Your task to perform on an android device: Add "razer nari" to the cart on ebay.com, then select checkout. Image 0: 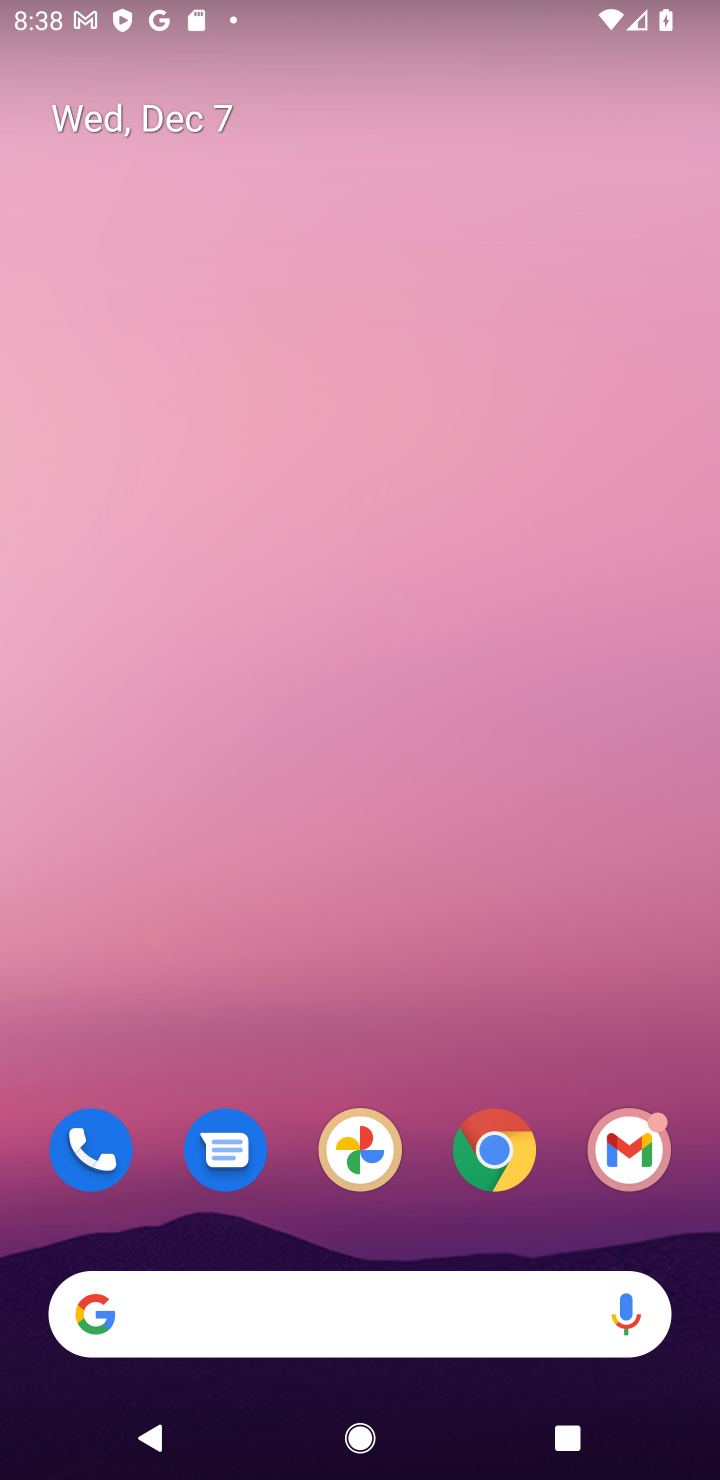
Step 0: click (497, 1153)
Your task to perform on an android device: Add "razer nari" to the cart on ebay.com, then select checkout. Image 1: 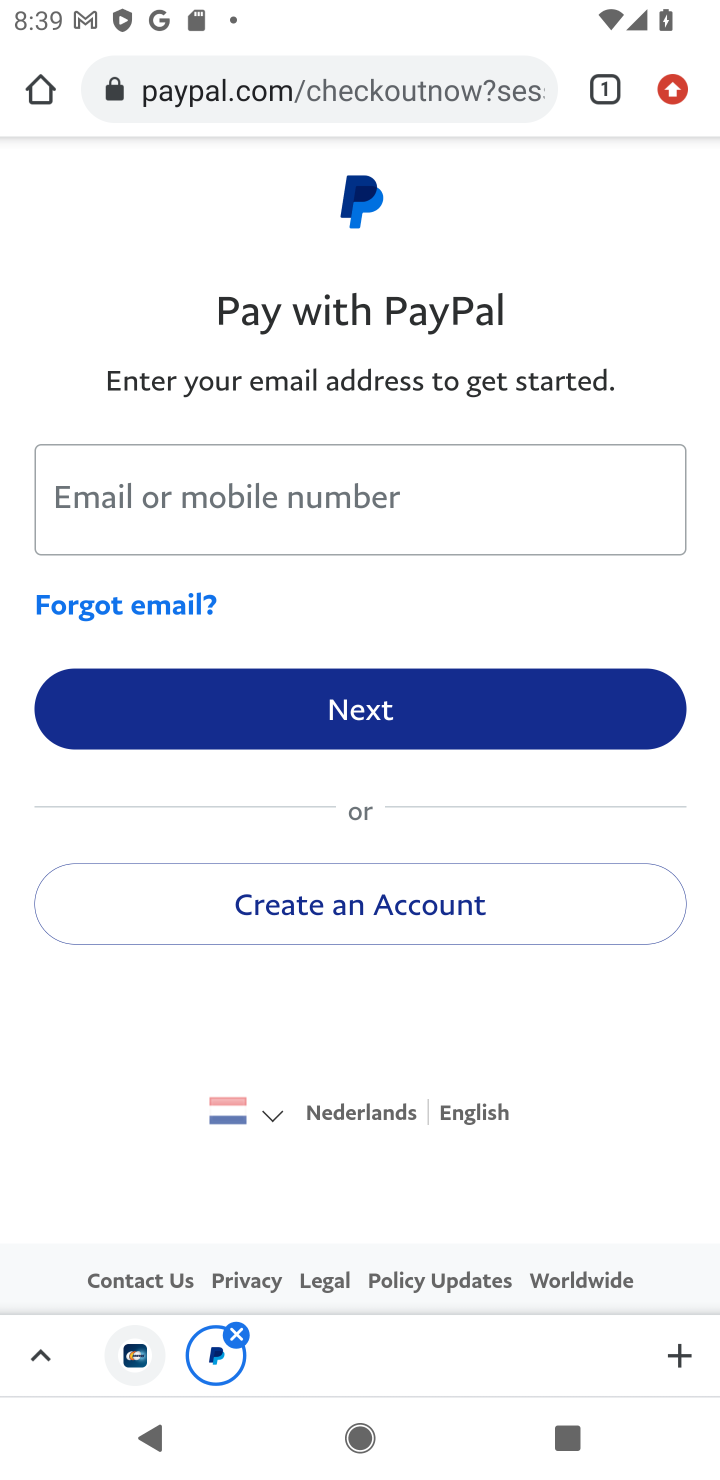
Step 1: click (285, 84)
Your task to perform on an android device: Add "razer nari" to the cart on ebay.com, then select checkout. Image 2: 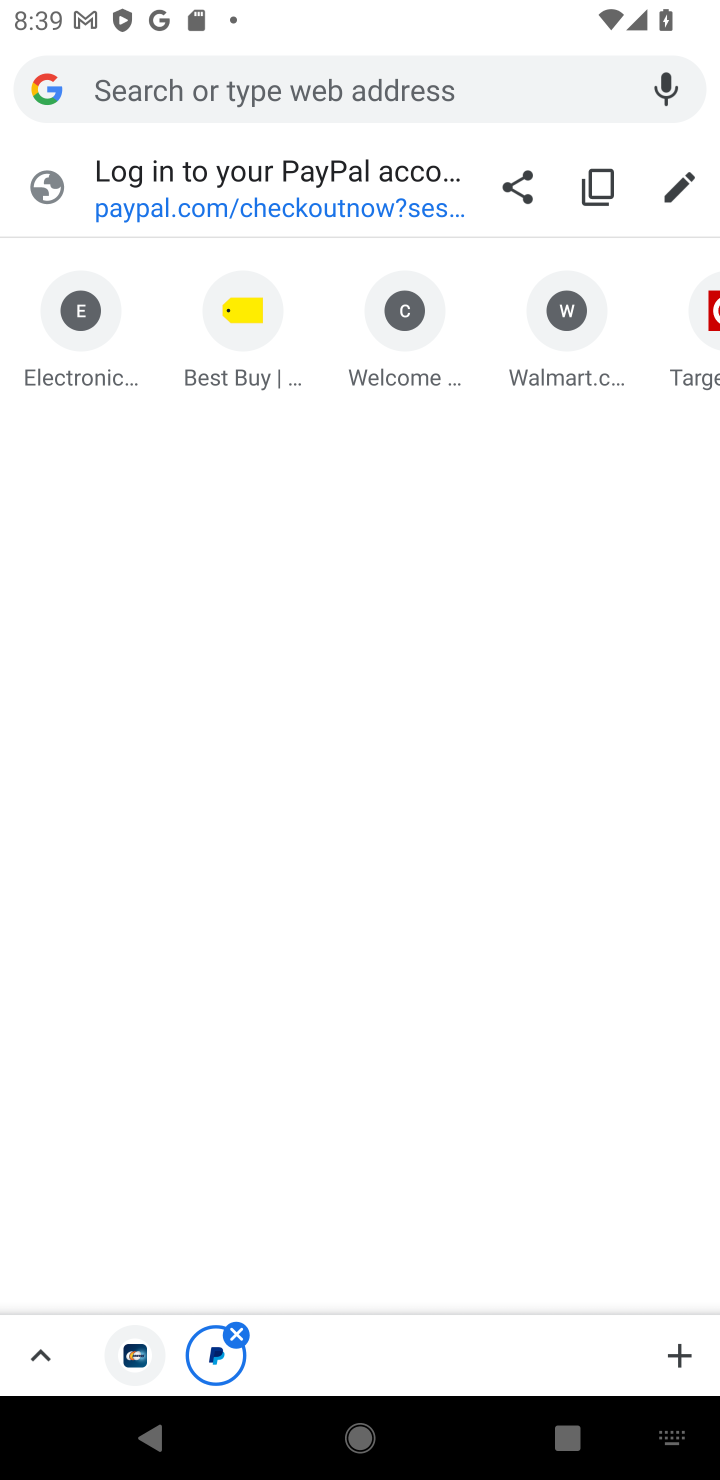
Step 2: type "ebay.com"
Your task to perform on an android device: Add "razer nari" to the cart on ebay.com, then select checkout. Image 3: 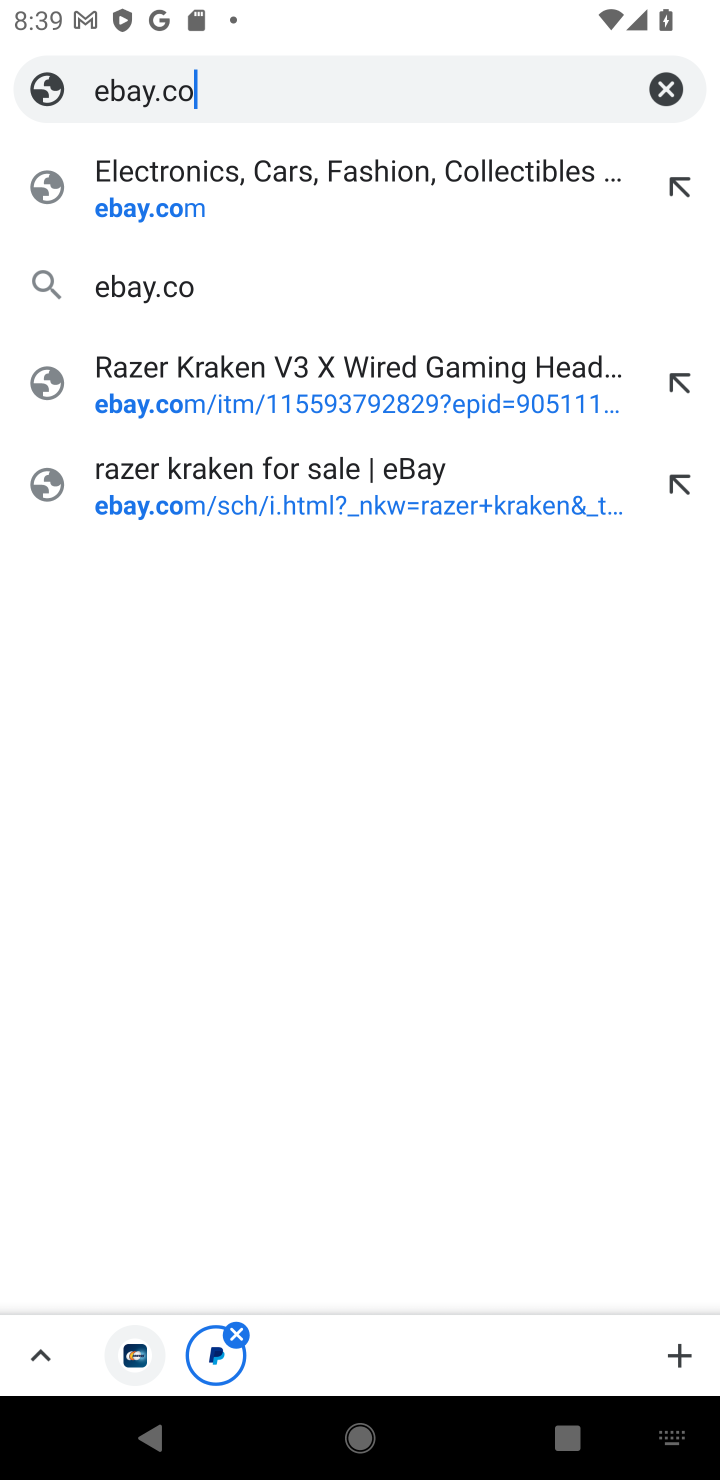
Step 3: press enter
Your task to perform on an android device: Add "razer nari" to the cart on ebay.com, then select checkout. Image 4: 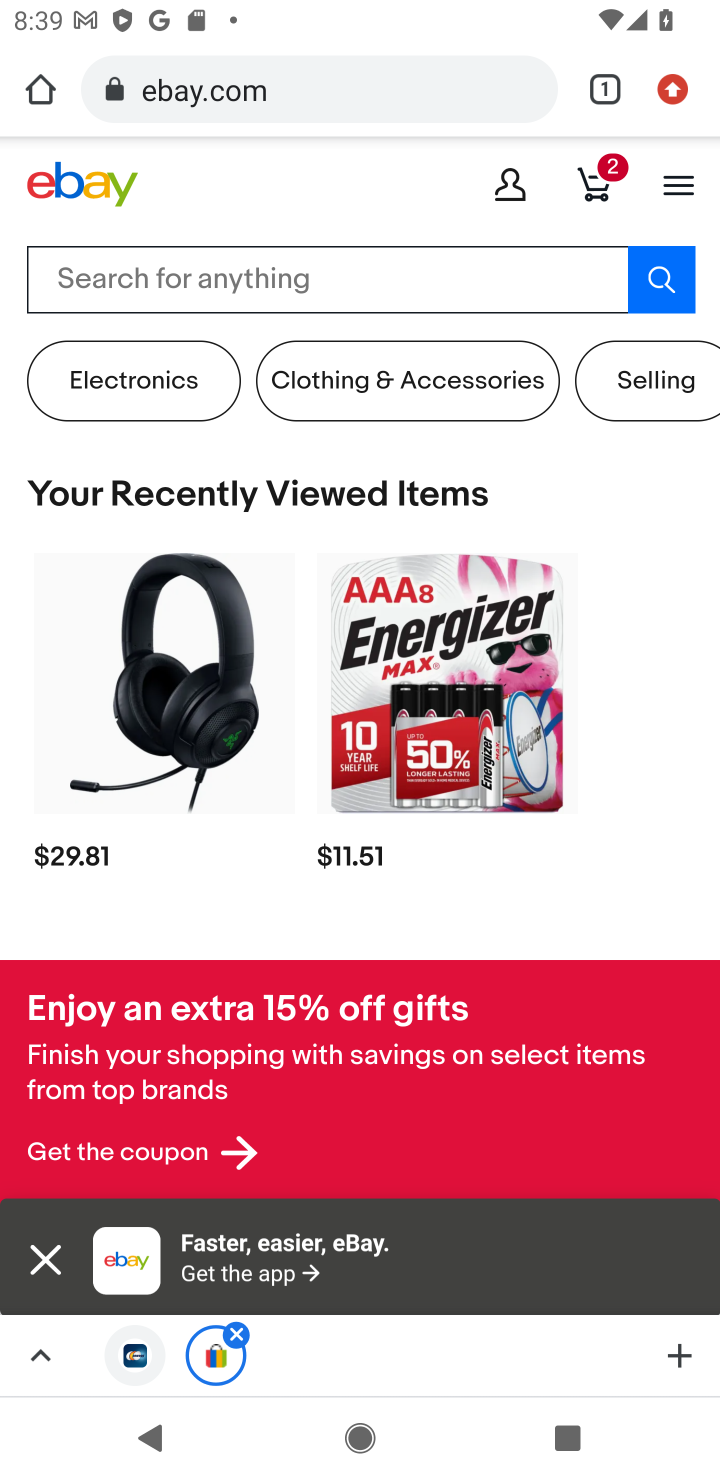
Step 4: click (325, 256)
Your task to perform on an android device: Add "razer nari" to the cart on ebay.com, then select checkout. Image 5: 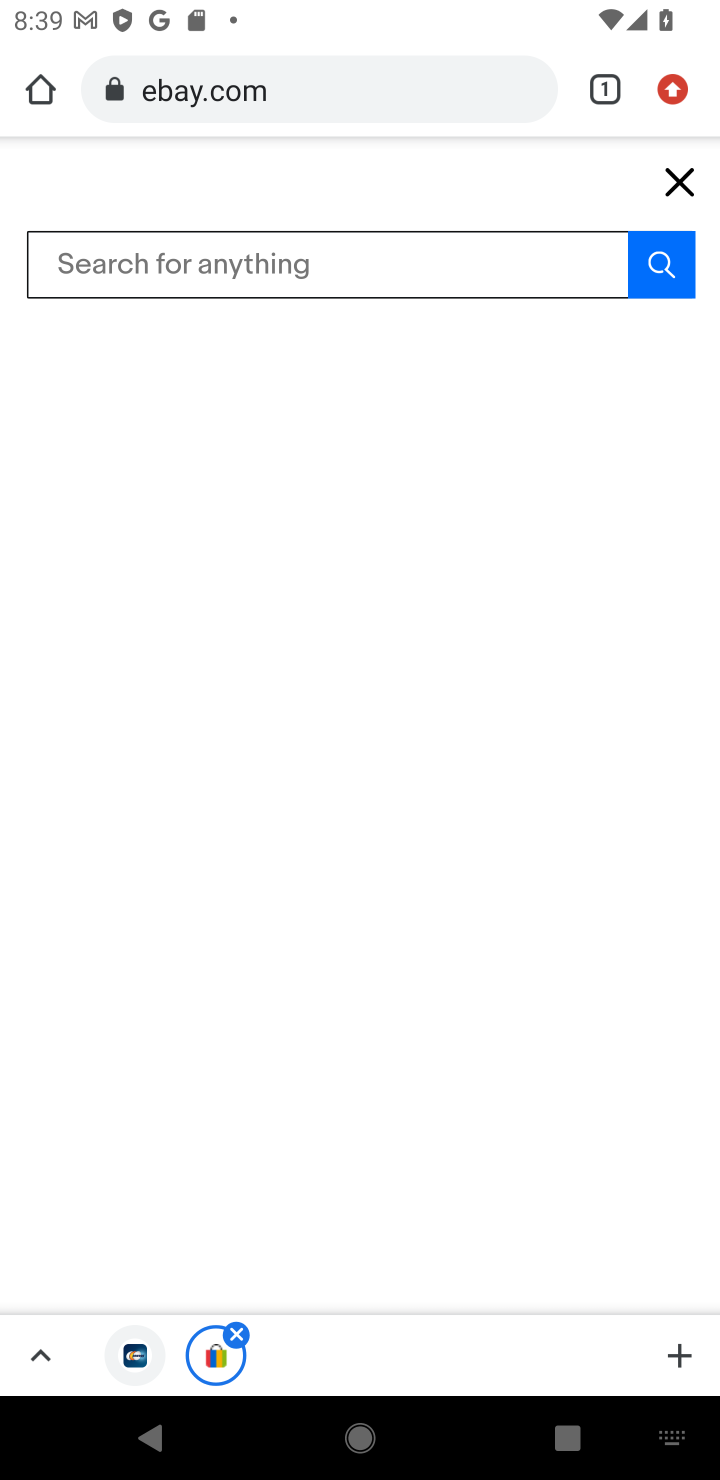
Step 5: type "razer nari"
Your task to perform on an android device: Add "razer nari" to the cart on ebay.com, then select checkout. Image 6: 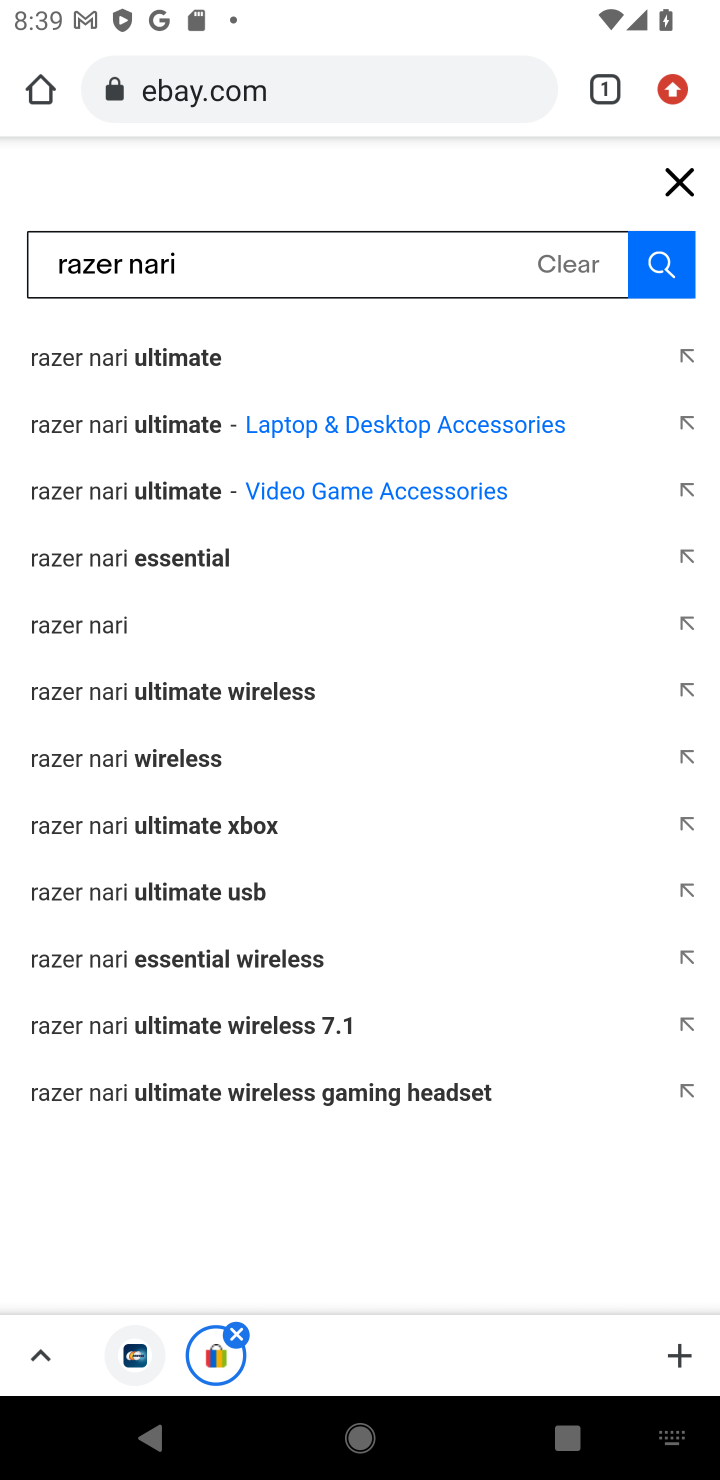
Step 6: click (658, 280)
Your task to perform on an android device: Add "razer nari" to the cart on ebay.com, then select checkout. Image 7: 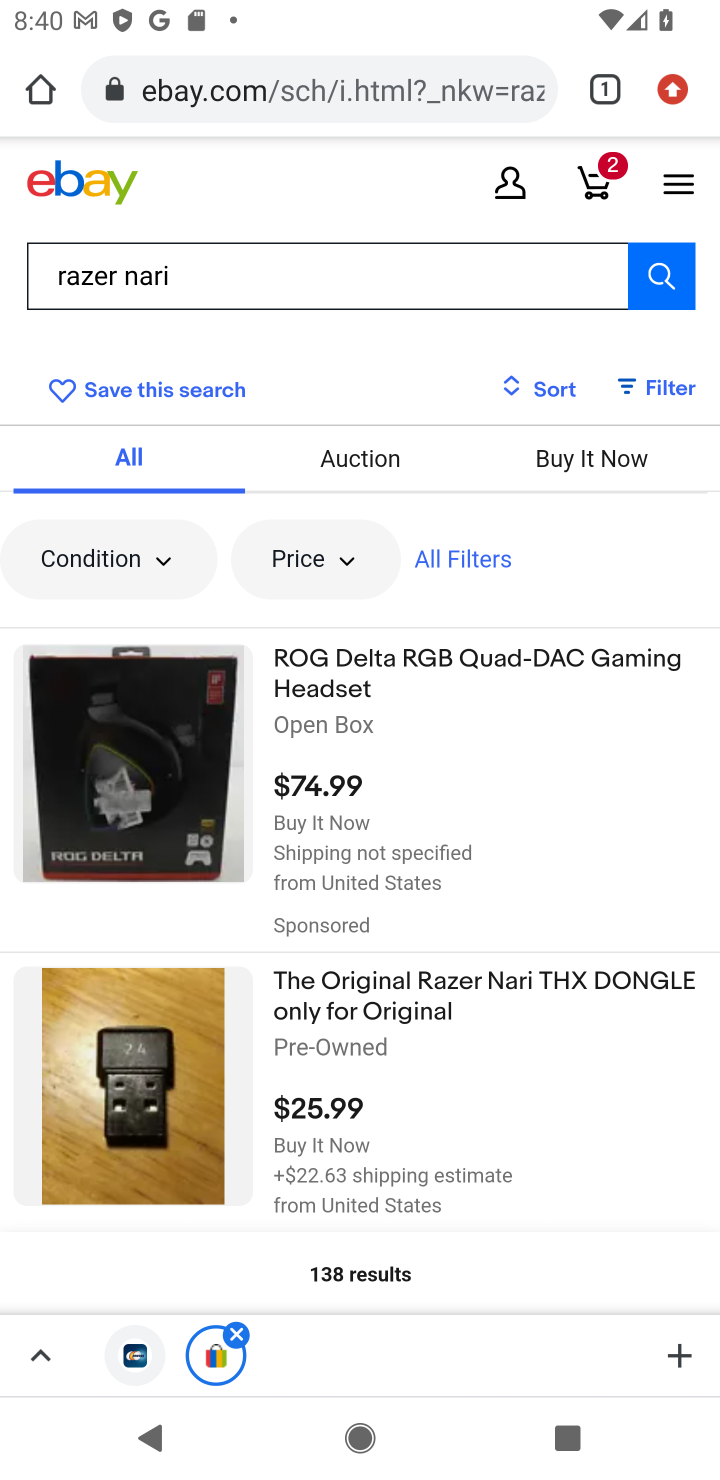
Step 7: drag from (470, 850) to (474, 589)
Your task to perform on an android device: Add "razer nari" to the cart on ebay.com, then select checkout. Image 8: 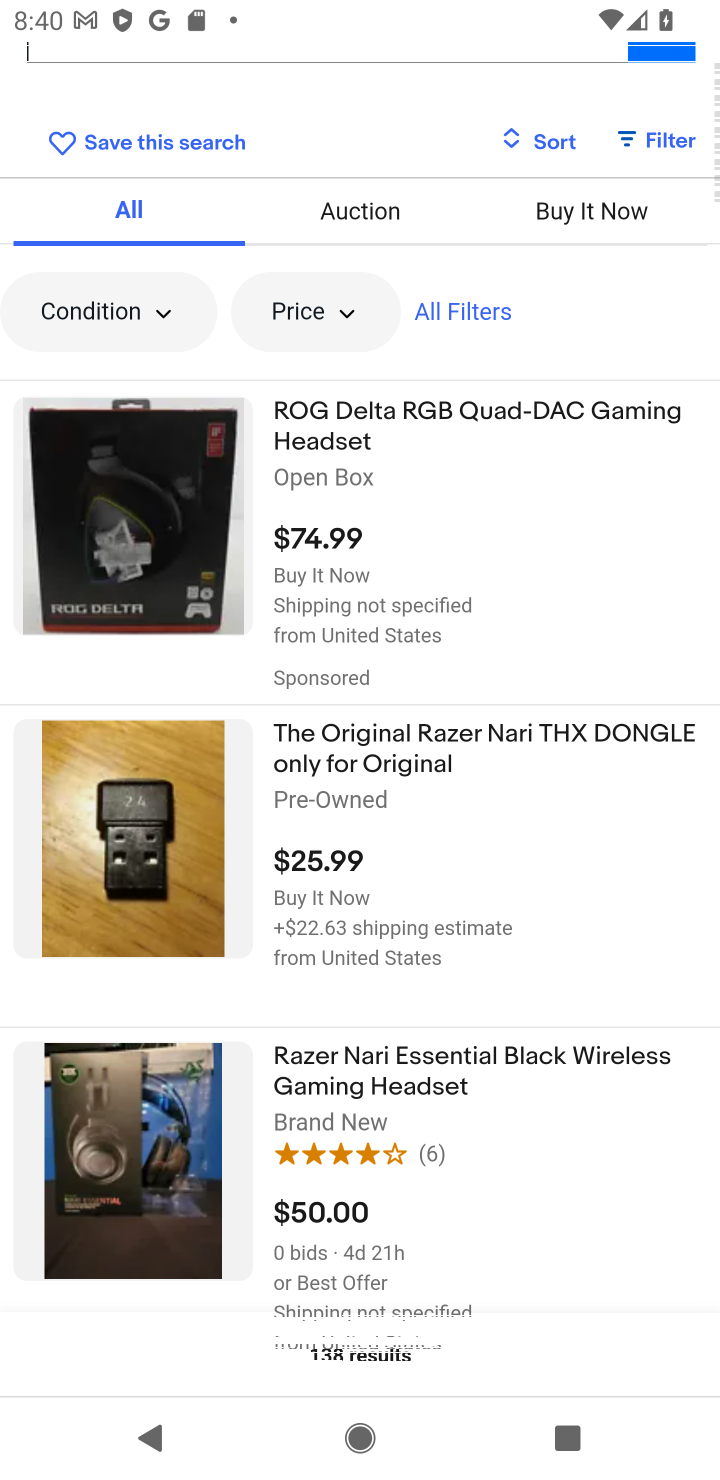
Step 8: drag from (427, 603) to (448, 808)
Your task to perform on an android device: Add "razer nari" to the cart on ebay.com, then select checkout. Image 9: 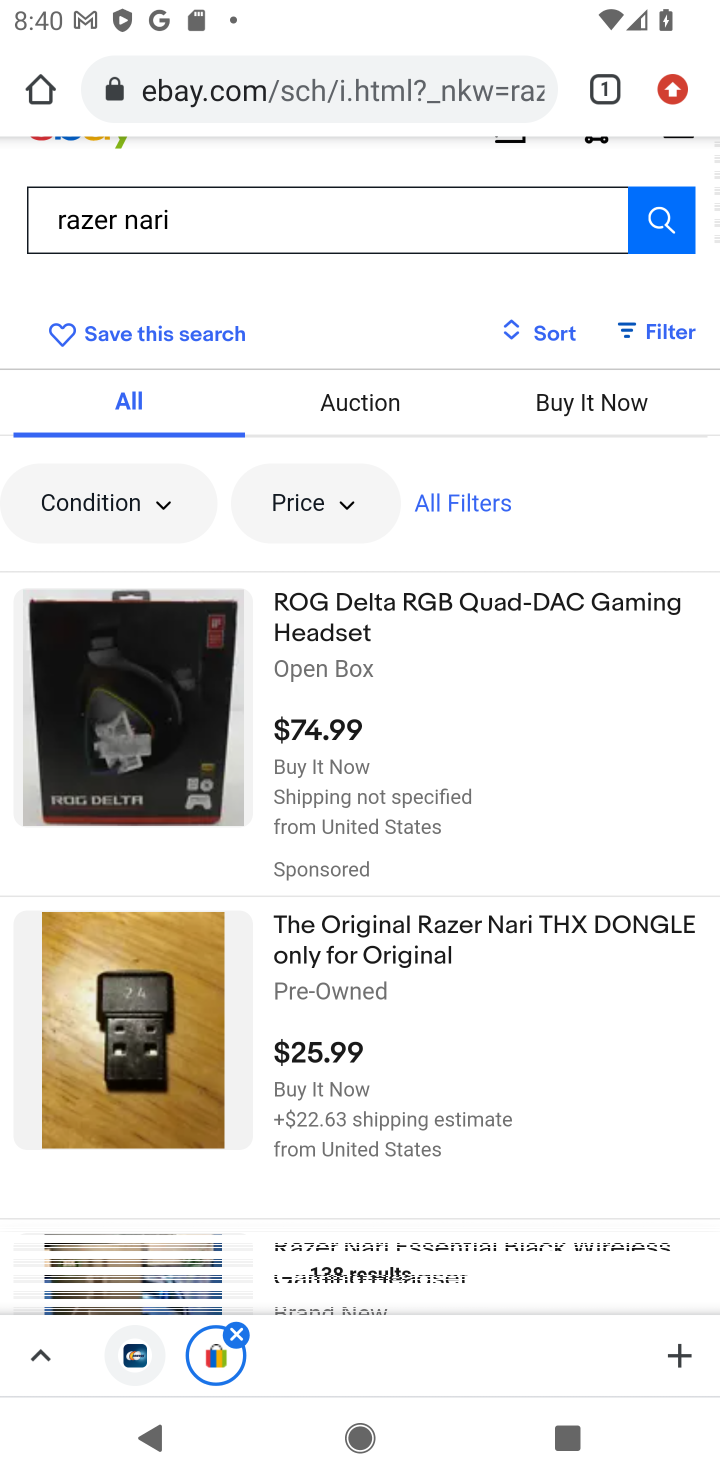
Step 9: drag from (522, 1065) to (478, 703)
Your task to perform on an android device: Add "razer nari" to the cart on ebay.com, then select checkout. Image 10: 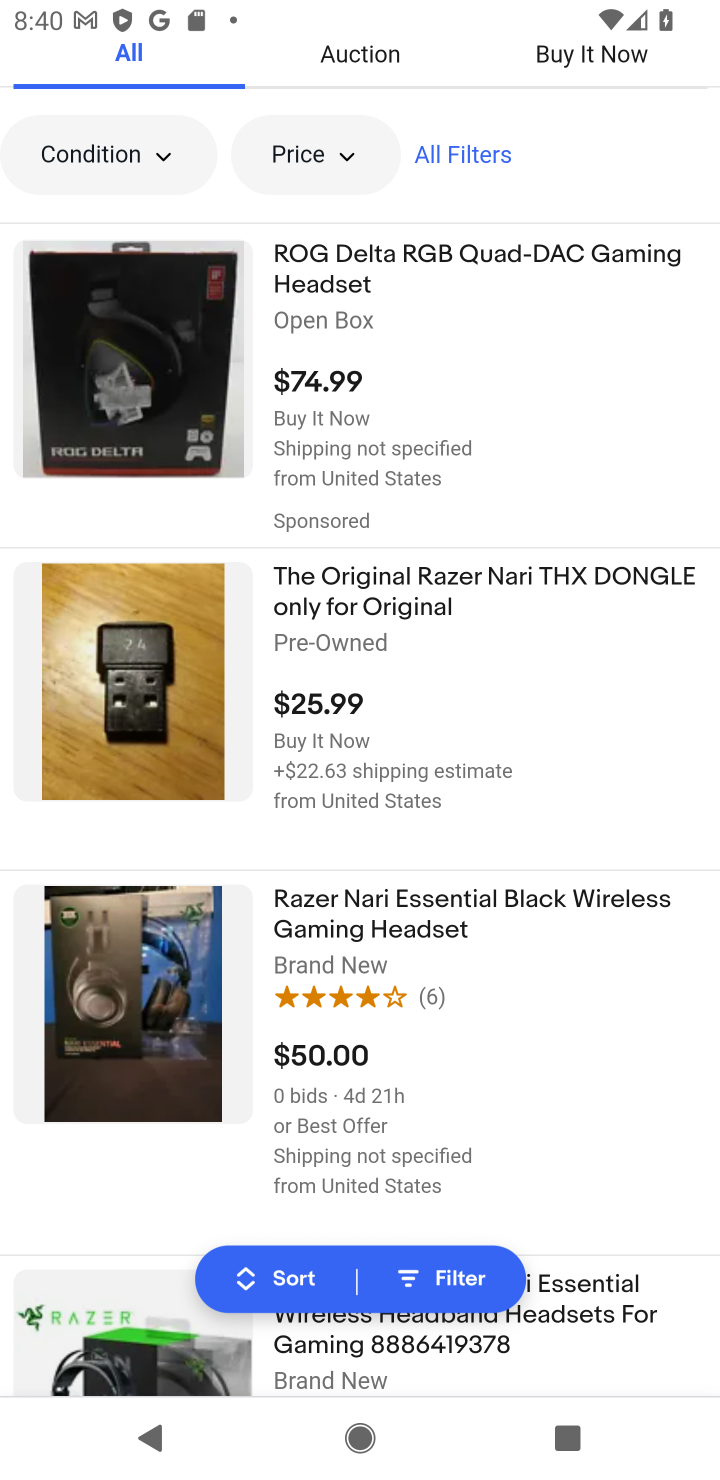
Step 10: click (384, 925)
Your task to perform on an android device: Add "razer nari" to the cart on ebay.com, then select checkout. Image 11: 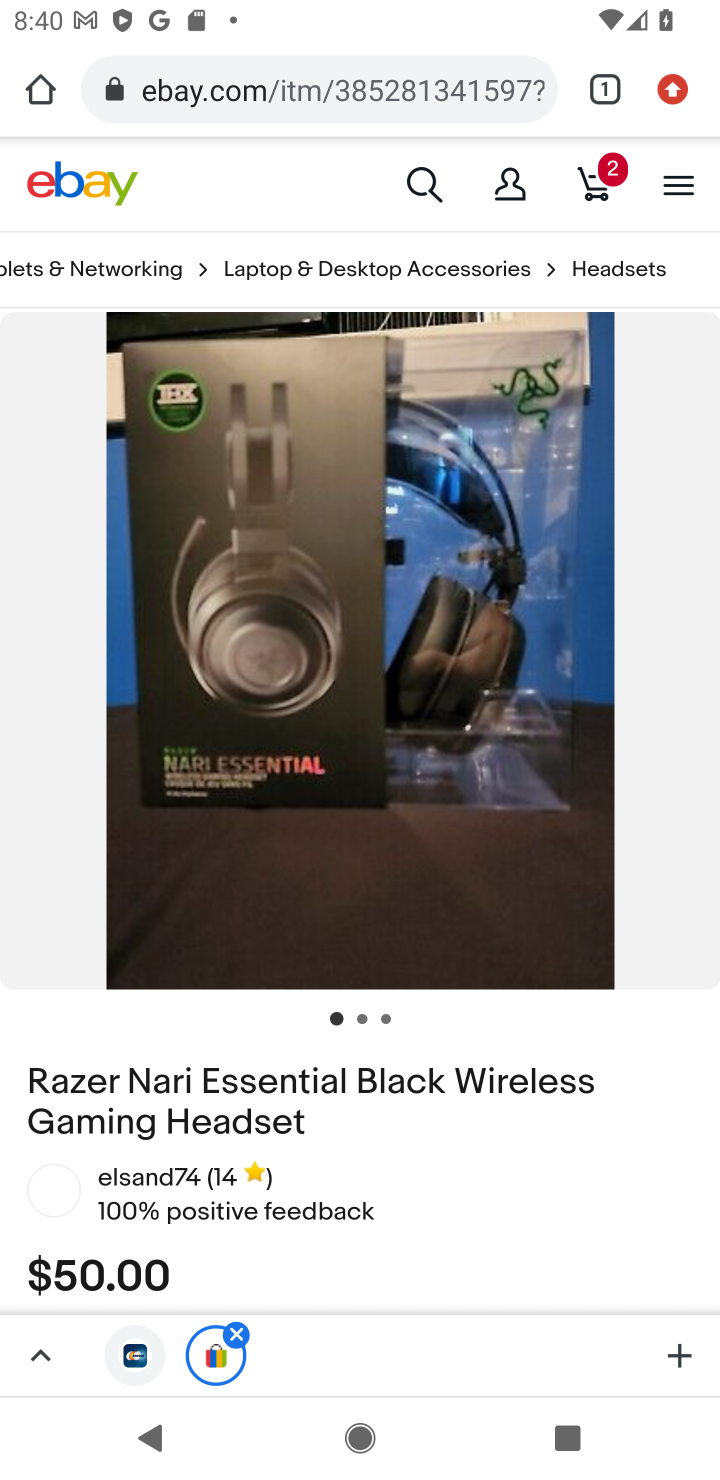
Step 11: task complete